Your task to perform on an android device: remove spam from my inbox in the gmail app Image 0: 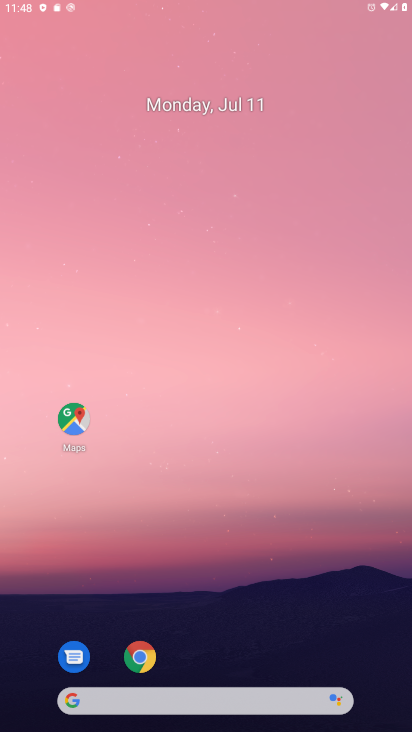
Step 0: click (263, 151)
Your task to perform on an android device: remove spam from my inbox in the gmail app Image 1: 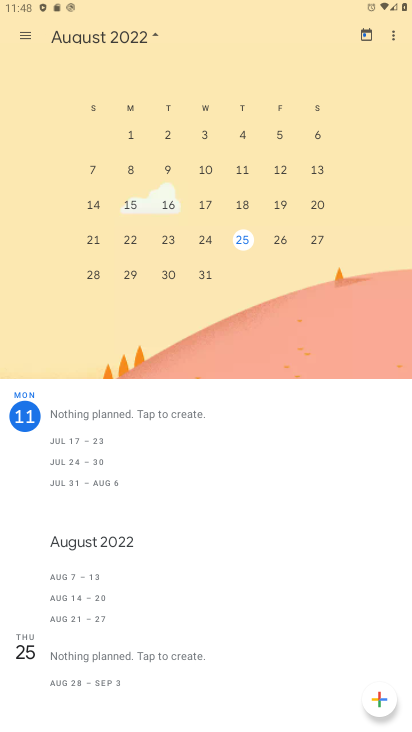
Step 1: drag from (204, 644) to (209, 235)
Your task to perform on an android device: remove spam from my inbox in the gmail app Image 2: 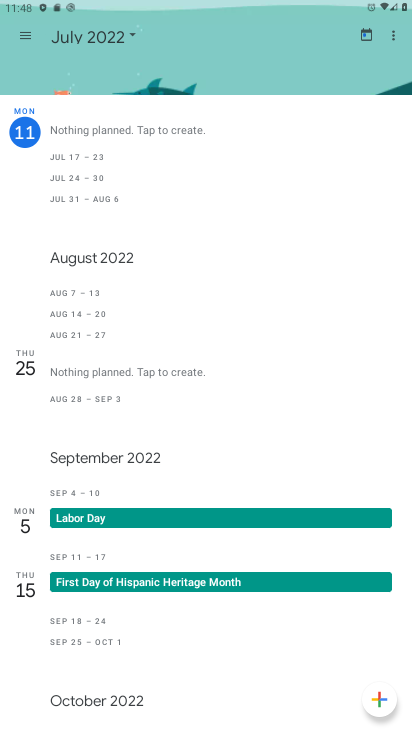
Step 2: press home button
Your task to perform on an android device: remove spam from my inbox in the gmail app Image 3: 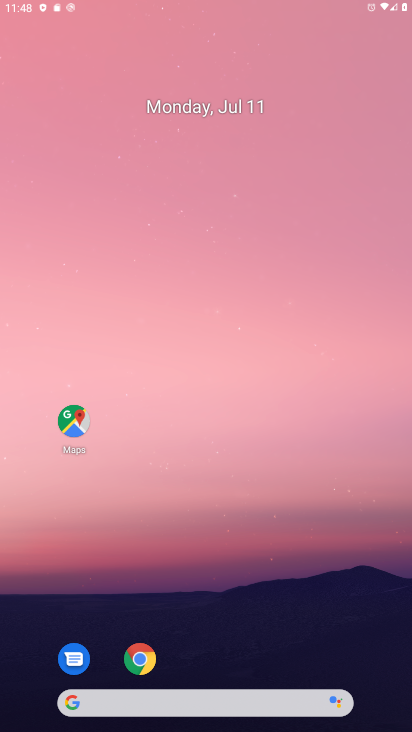
Step 3: drag from (174, 652) to (196, 190)
Your task to perform on an android device: remove spam from my inbox in the gmail app Image 4: 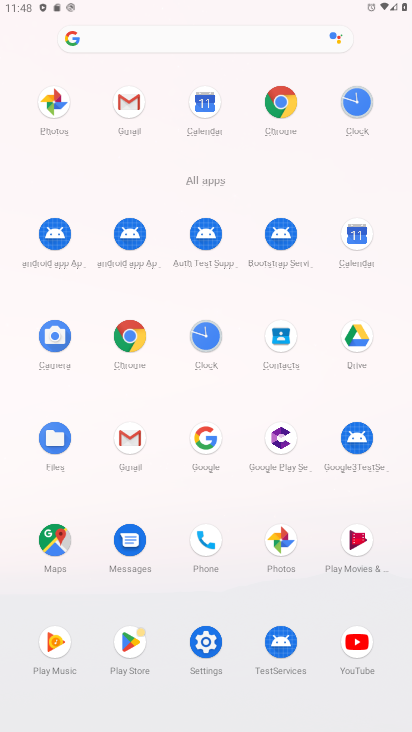
Step 4: click (121, 428)
Your task to perform on an android device: remove spam from my inbox in the gmail app Image 5: 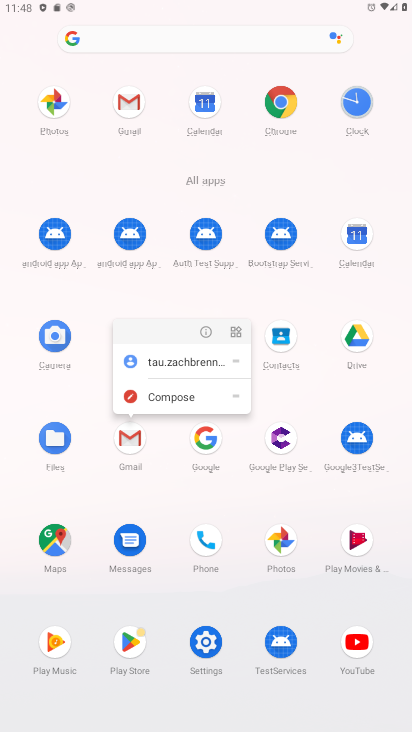
Step 5: click (204, 328)
Your task to perform on an android device: remove spam from my inbox in the gmail app Image 6: 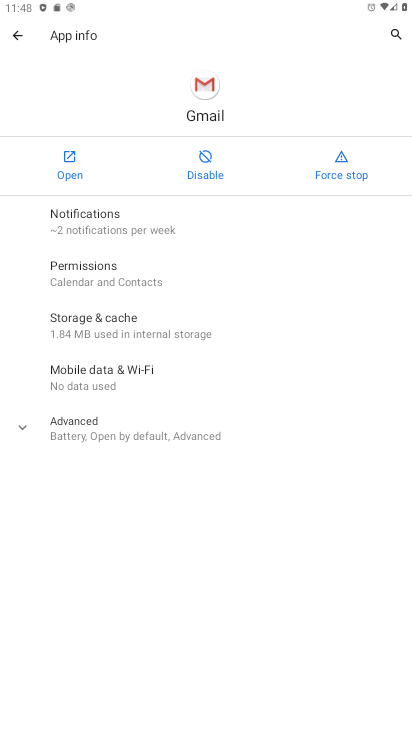
Step 6: click (63, 166)
Your task to perform on an android device: remove spam from my inbox in the gmail app Image 7: 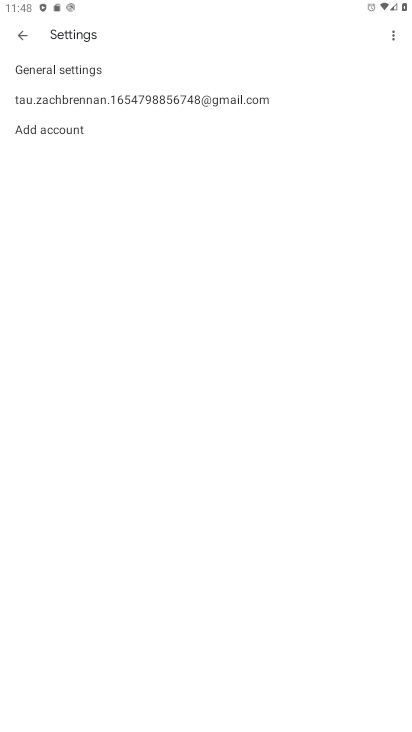
Step 7: click (190, 90)
Your task to perform on an android device: remove spam from my inbox in the gmail app Image 8: 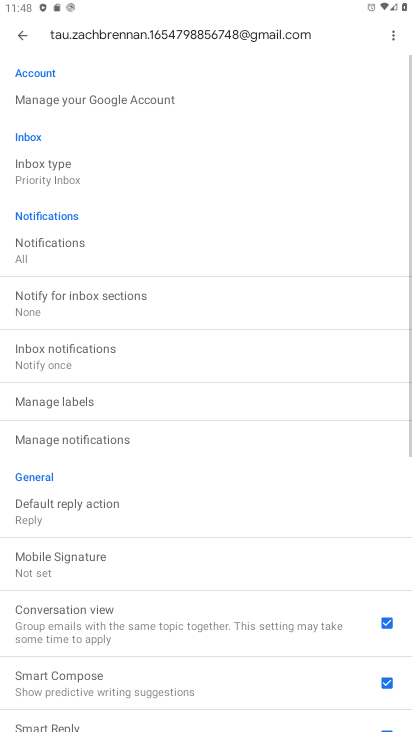
Step 8: drag from (129, 545) to (172, 270)
Your task to perform on an android device: remove spam from my inbox in the gmail app Image 9: 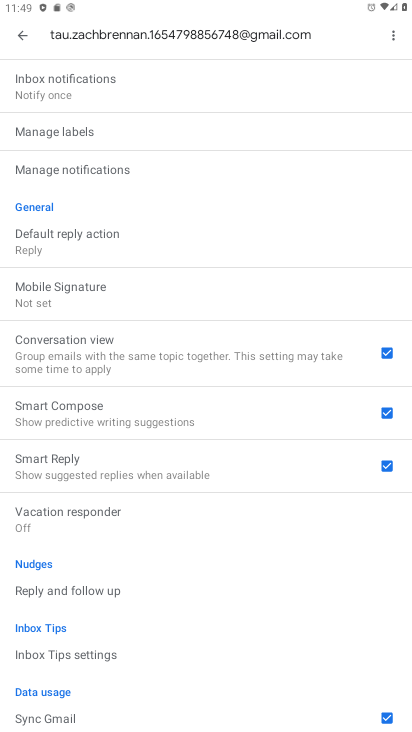
Step 9: drag from (114, 133) to (276, 670)
Your task to perform on an android device: remove spam from my inbox in the gmail app Image 10: 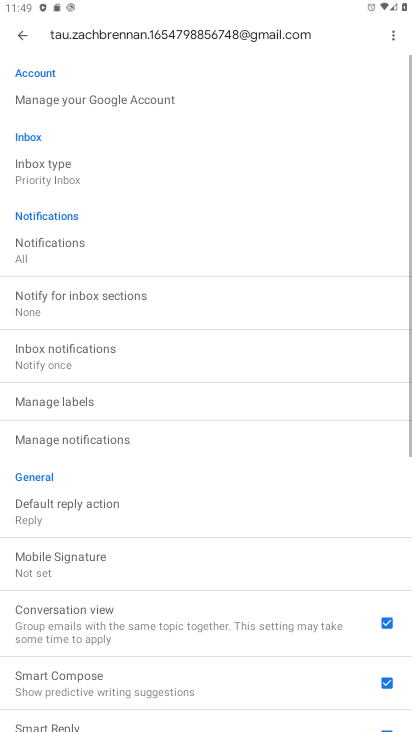
Step 10: drag from (145, 273) to (275, 730)
Your task to perform on an android device: remove spam from my inbox in the gmail app Image 11: 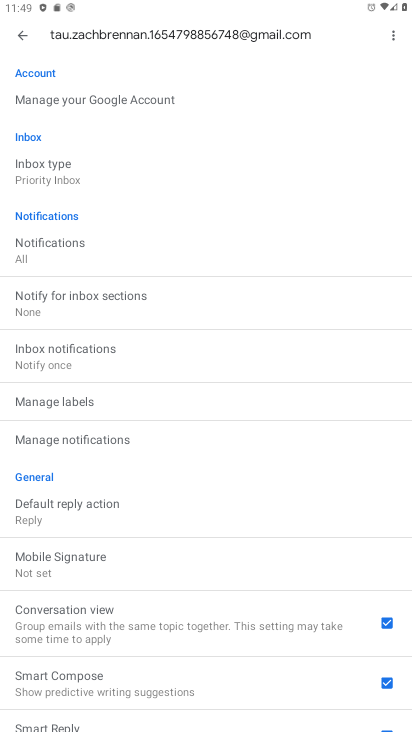
Step 11: drag from (143, 269) to (232, 709)
Your task to perform on an android device: remove spam from my inbox in the gmail app Image 12: 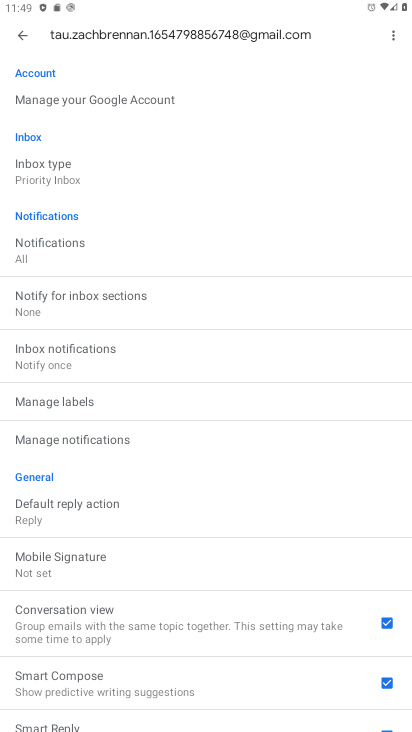
Step 12: click (29, 21)
Your task to perform on an android device: remove spam from my inbox in the gmail app Image 13: 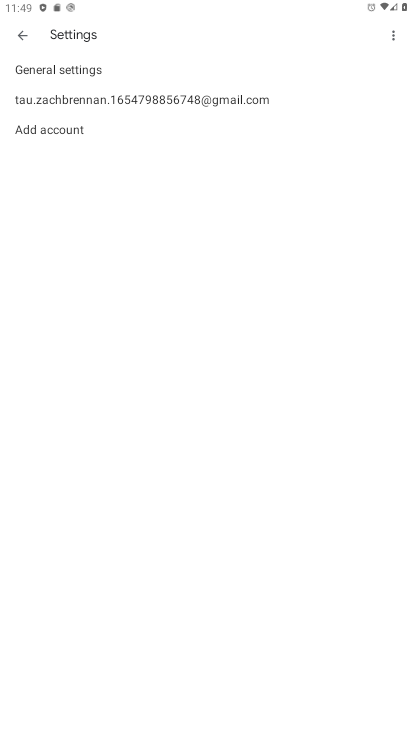
Step 13: click (121, 109)
Your task to perform on an android device: remove spam from my inbox in the gmail app Image 14: 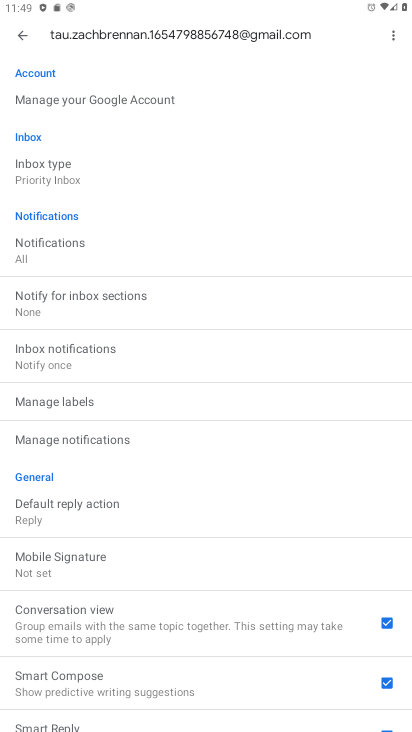
Step 14: click (29, 34)
Your task to perform on an android device: remove spam from my inbox in the gmail app Image 15: 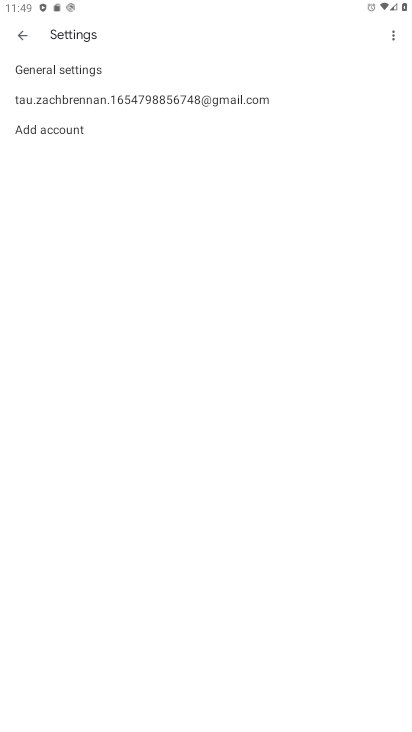
Step 15: click (15, 47)
Your task to perform on an android device: remove spam from my inbox in the gmail app Image 16: 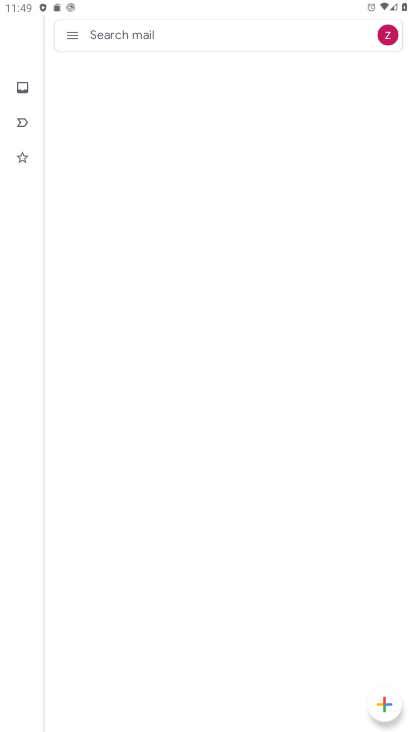
Step 16: click (77, 32)
Your task to perform on an android device: remove spam from my inbox in the gmail app Image 17: 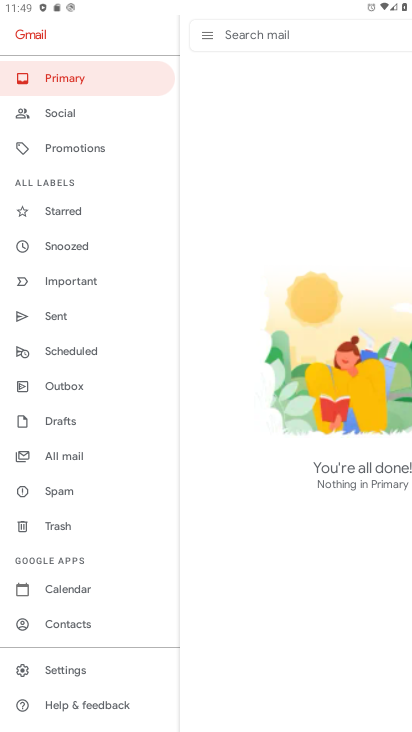
Step 17: click (50, 486)
Your task to perform on an android device: remove spam from my inbox in the gmail app Image 18: 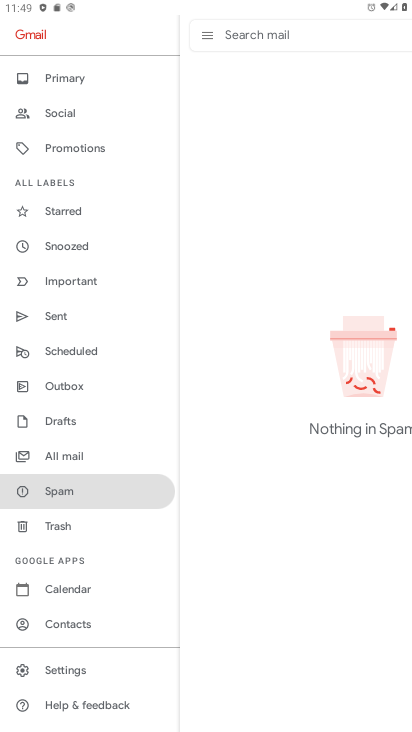
Step 18: click (213, 26)
Your task to perform on an android device: remove spam from my inbox in the gmail app Image 19: 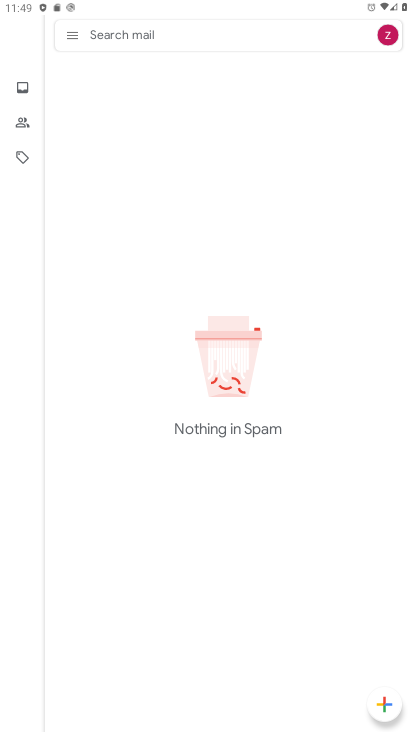
Step 19: task complete